Your task to perform on an android device: check data usage Image 0: 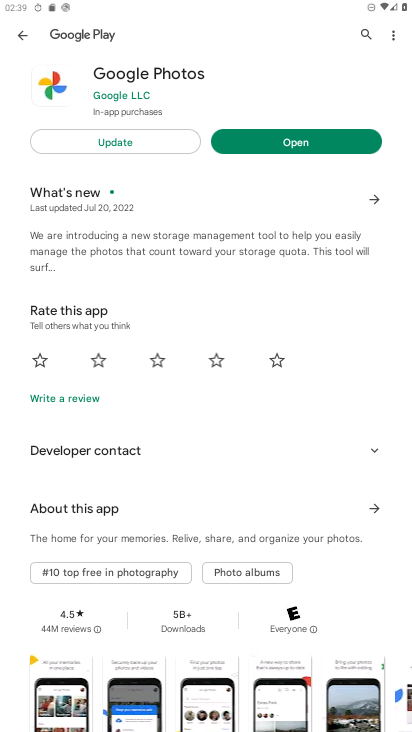
Step 0: press home button
Your task to perform on an android device: check data usage Image 1: 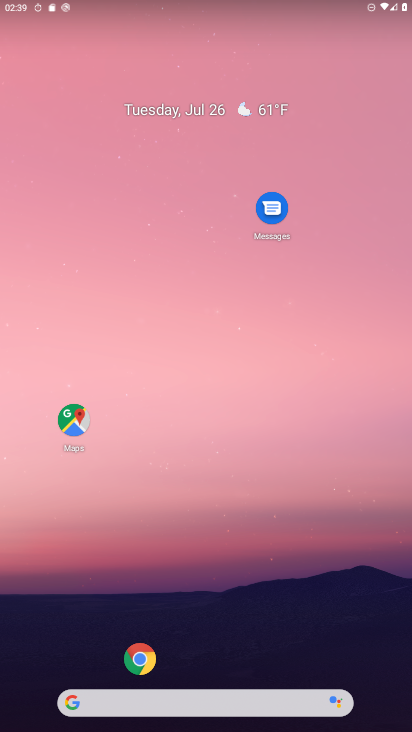
Step 1: drag from (160, 255) to (400, 57)
Your task to perform on an android device: check data usage Image 2: 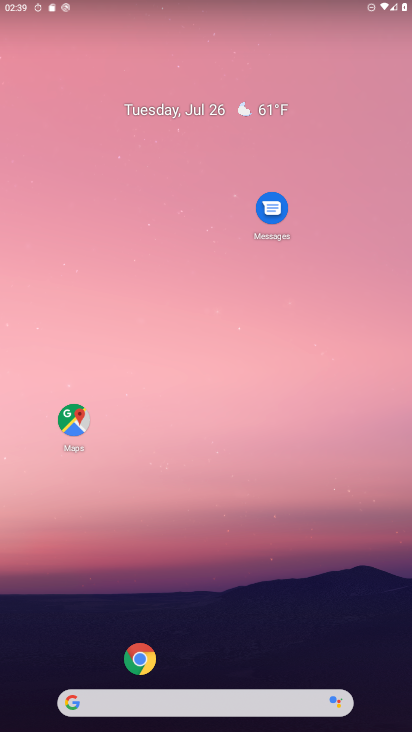
Step 2: drag from (32, 712) to (262, 139)
Your task to perform on an android device: check data usage Image 3: 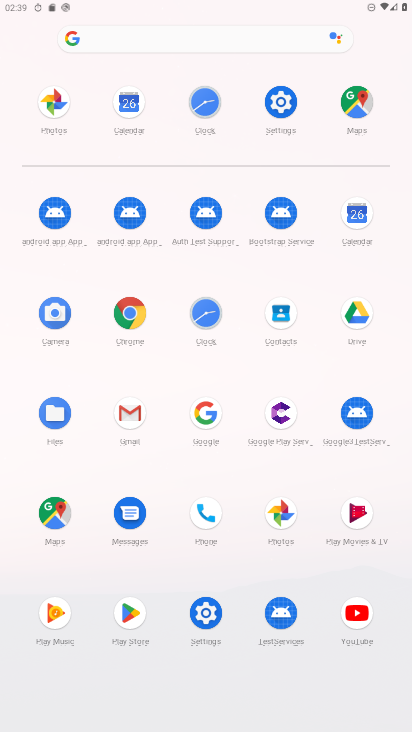
Step 3: click (205, 623)
Your task to perform on an android device: check data usage Image 4: 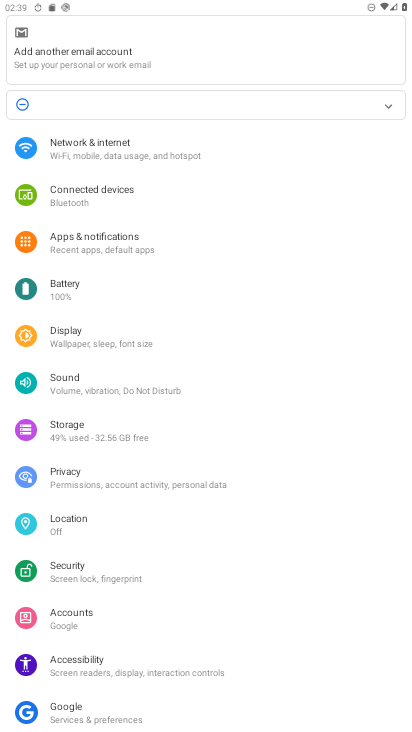
Step 4: click (98, 155)
Your task to perform on an android device: check data usage Image 5: 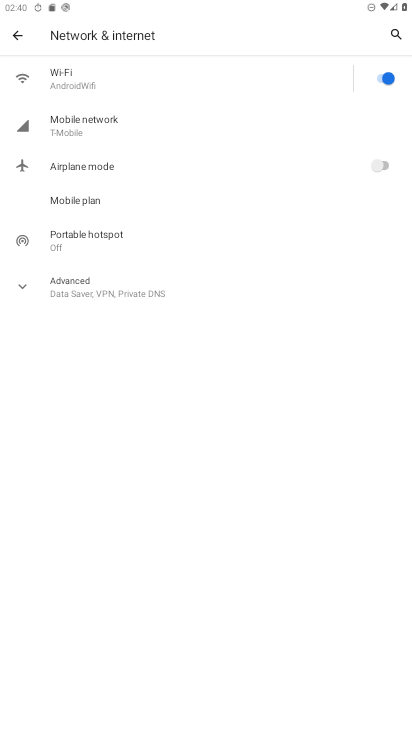
Step 5: click (65, 135)
Your task to perform on an android device: check data usage Image 6: 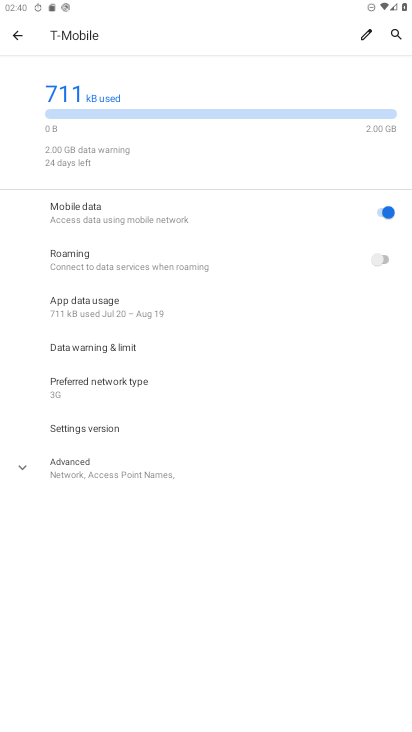
Step 6: task complete